Your task to perform on an android device: Check the news Image 0: 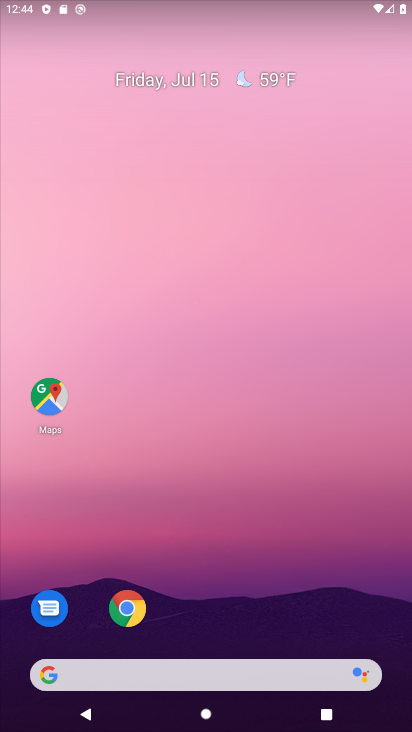
Step 0: click (124, 614)
Your task to perform on an android device: Check the news Image 1: 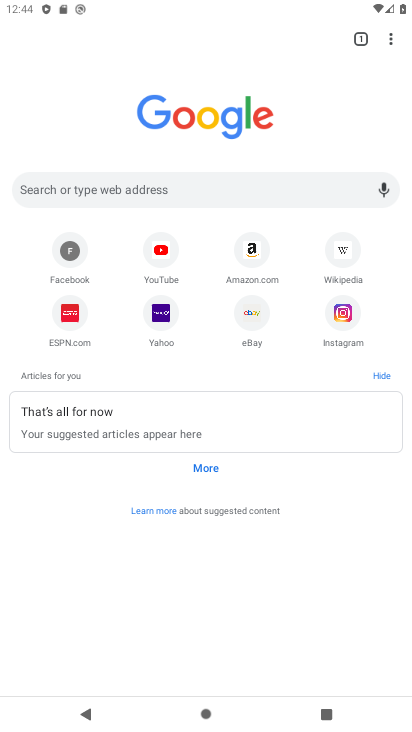
Step 1: click (182, 193)
Your task to perform on an android device: Check the news Image 2: 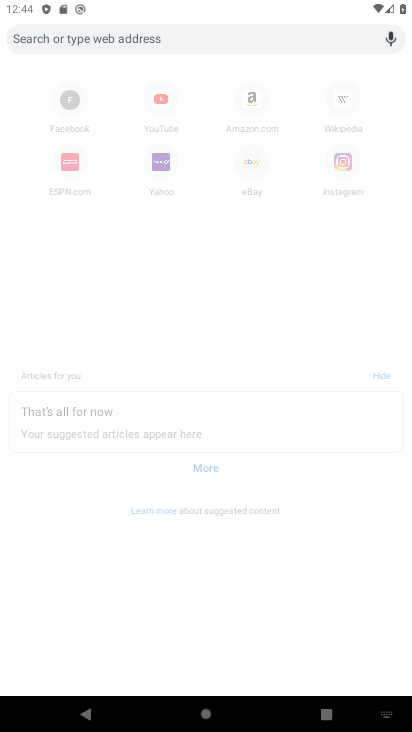
Step 2: type "news"
Your task to perform on an android device: Check the news Image 3: 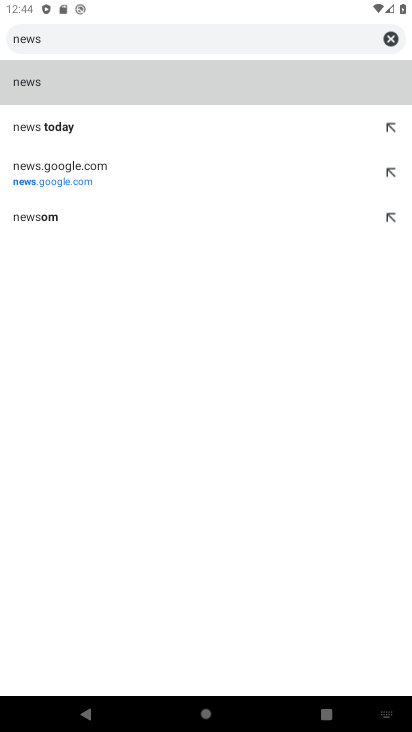
Step 3: click (56, 80)
Your task to perform on an android device: Check the news Image 4: 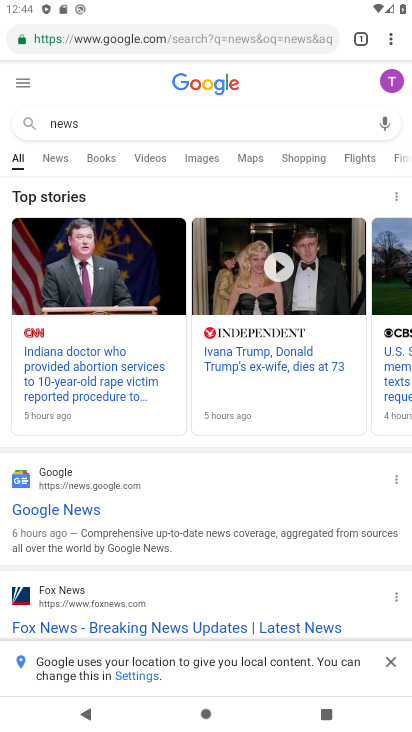
Step 4: task complete